Your task to perform on an android device: Search for Italian restaurants on Maps Image 0: 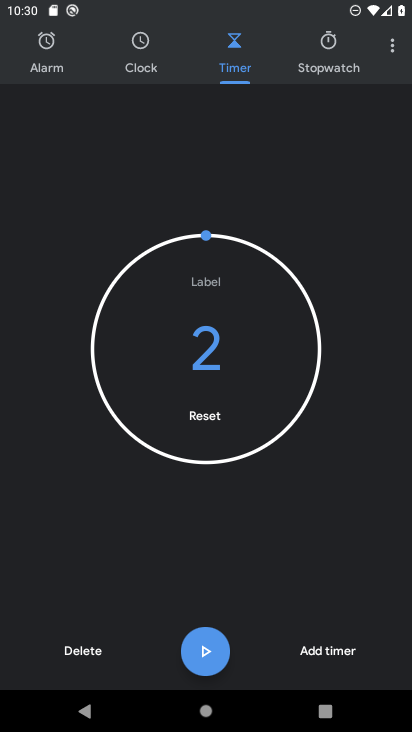
Step 0: press home button
Your task to perform on an android device: Search for Italian restaurants on Maps Image 1: 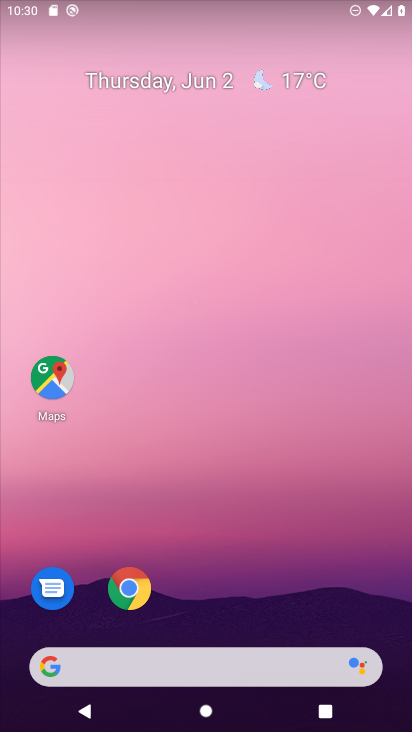
Step 1: drag from (217, 607) to (250, 315)
Your task to perform on an android device: Search for Italian restaurants on Maps Image 2: 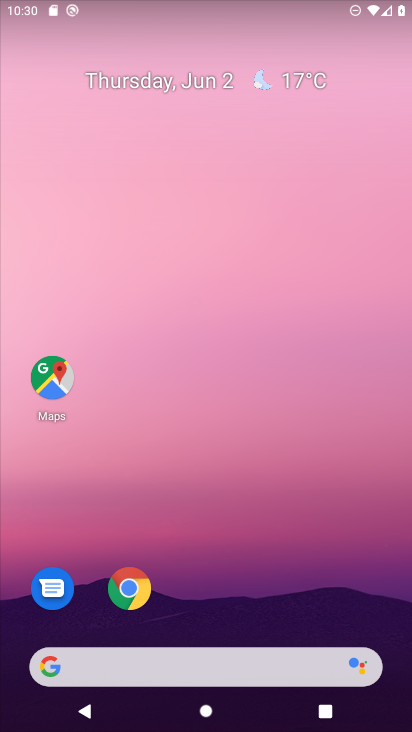
Step 2: drag from (250, 637) to (342, 32)
Your task to perform on an android device: Search for Italian restaurants on Maps Image 3: 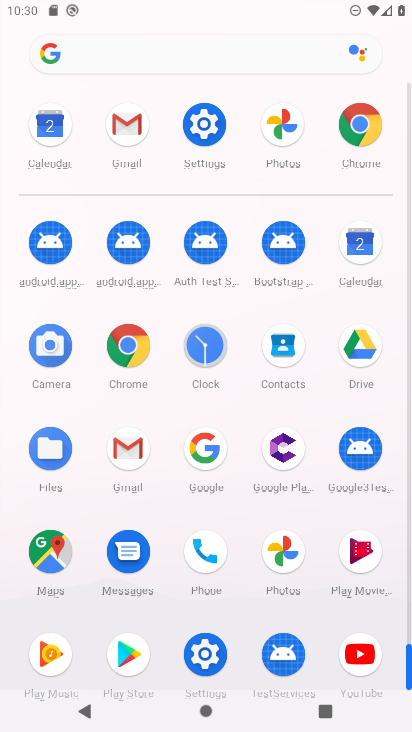
Step 3: click (73, 560)
Your task to perform on an android device: Search for Italian restaurants on Maps Image 4: 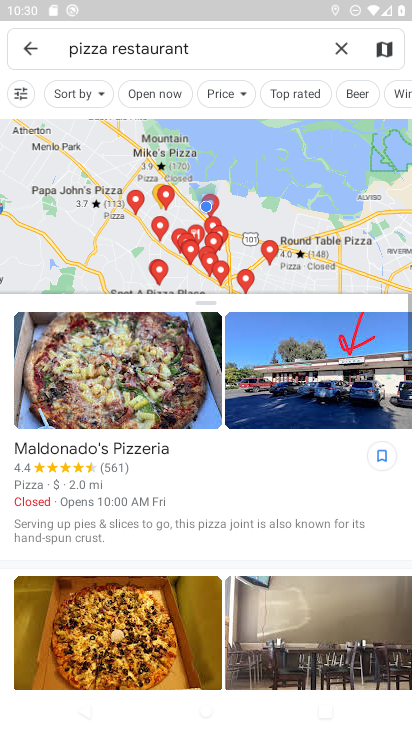
Step 4: click (339, 48)
Your task to perform on an android device: Search for Italian restaurants on Maps Image 5: 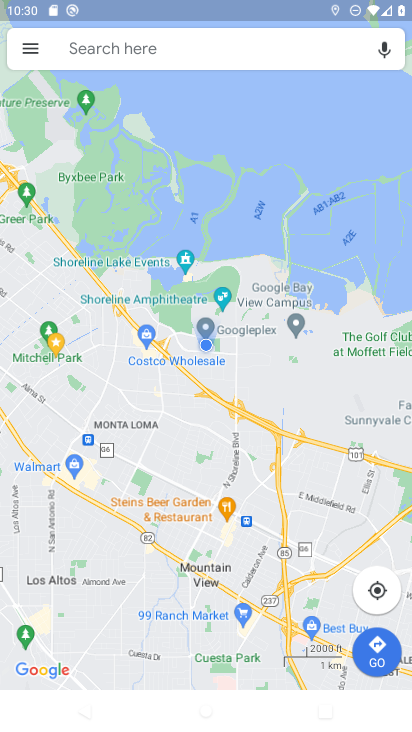
Step 5: click (298, 62)
Your task to perform on an android device: Search for Italian restaurants on Maps Image 6: 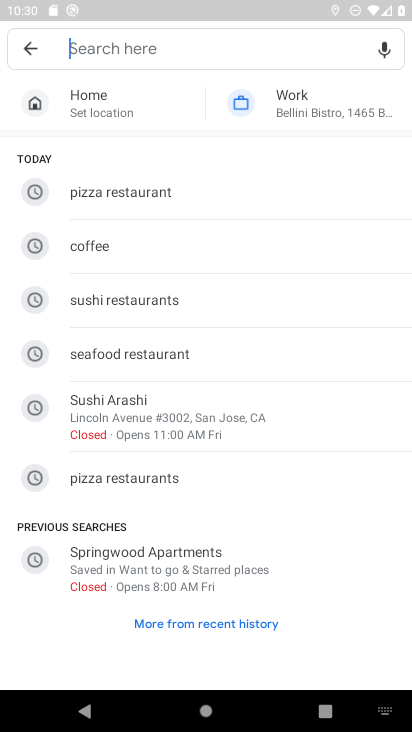
Step 6: type "italian"
Your task to perform on an android device: Search for Italian restaurants on Maps Image 7: 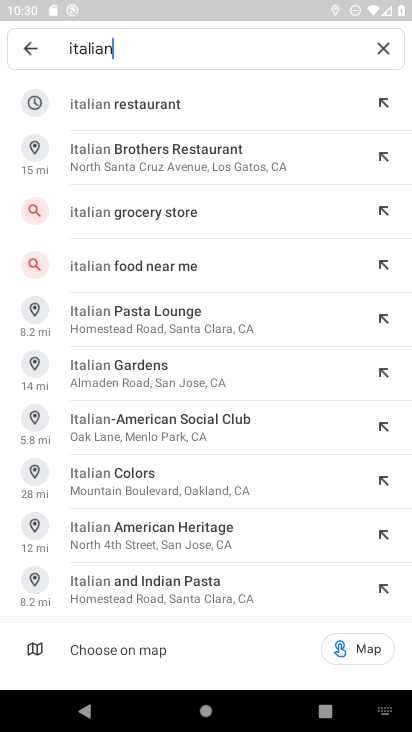
Step 7: click (218, 104)
Your task to perform on an android device: Search for Italian restaurants on Maps Image 8: 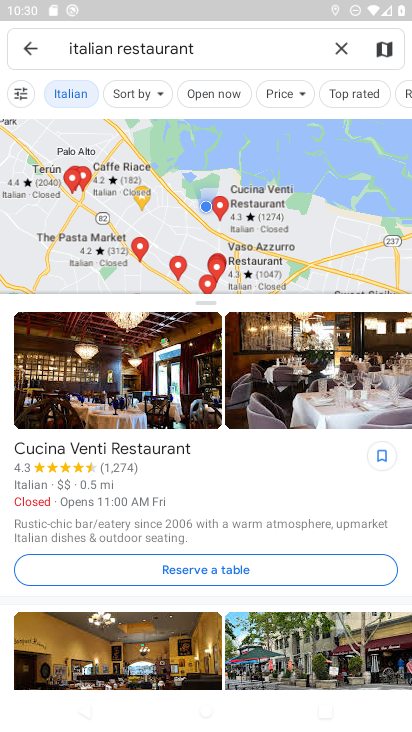
Step 8: task complete